Your task to perform on an android device: Go to display settings Image 0: 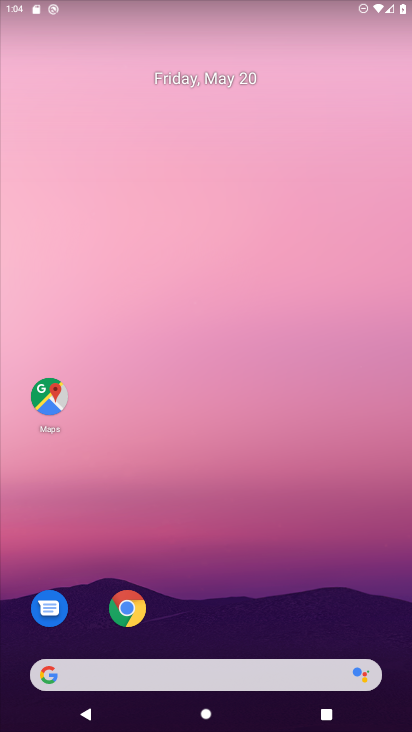
Step 0: drag from (222, 620) to (153, 77)
Your task to perform on an android device: Go to display settings Image 1: 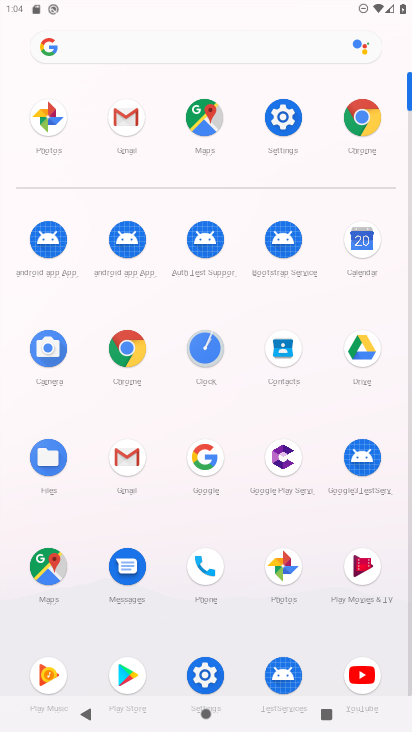
Step 1: click (288, 132)
Your task to perform on an android device: Go to display settings Image 2: 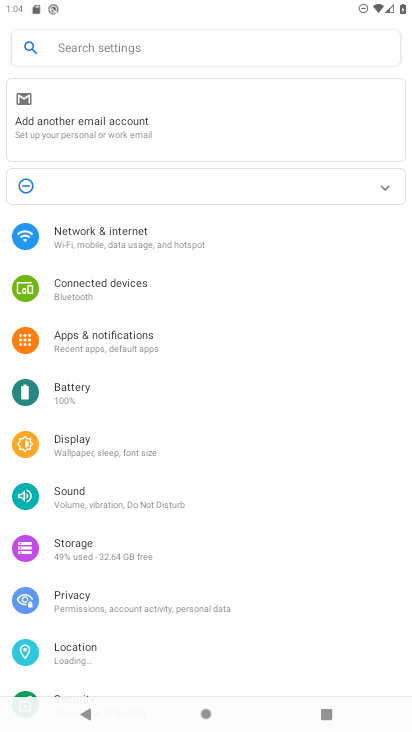
Step 2: click (66, 444)
Your task to perform on an android device: Go to display settings Image 3: 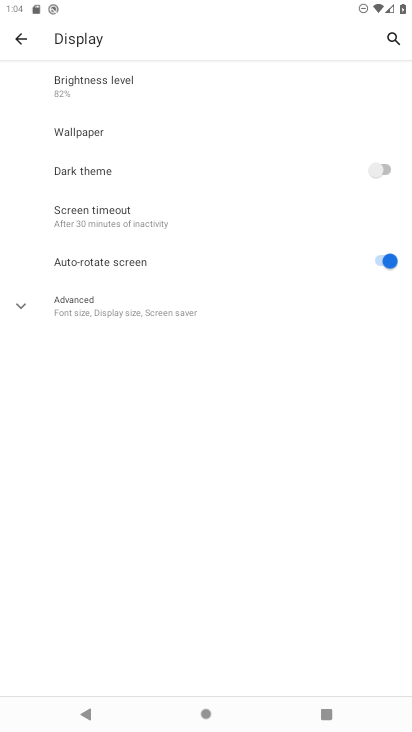
Step 3: task complete